Your task to perform on an android device: Search for the best rated headphones on amazon.com Image 0: 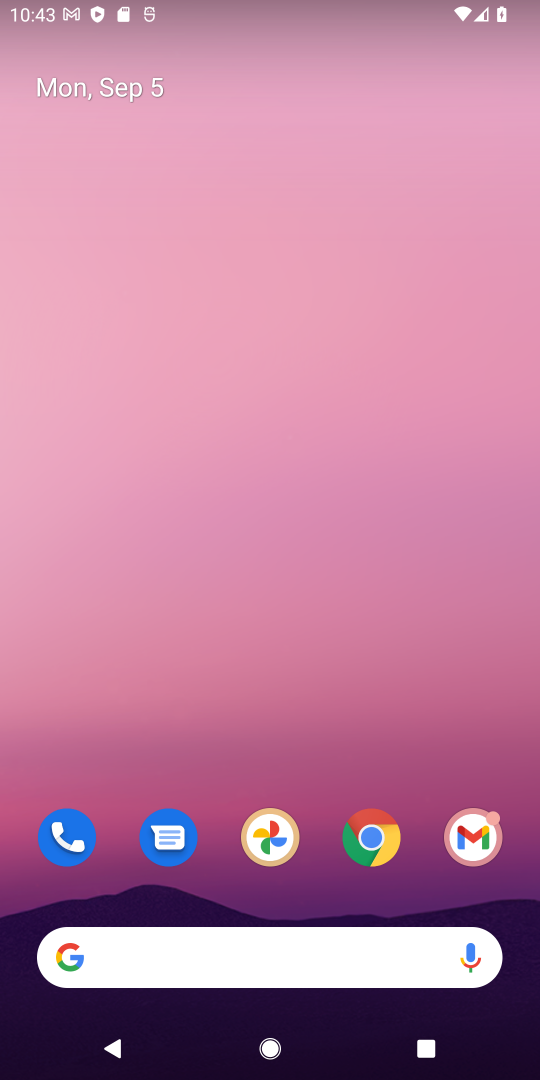
Step 0: press home button
Your task to perform on an android device: Search for the best rated headphones on amazon.com Image 1: 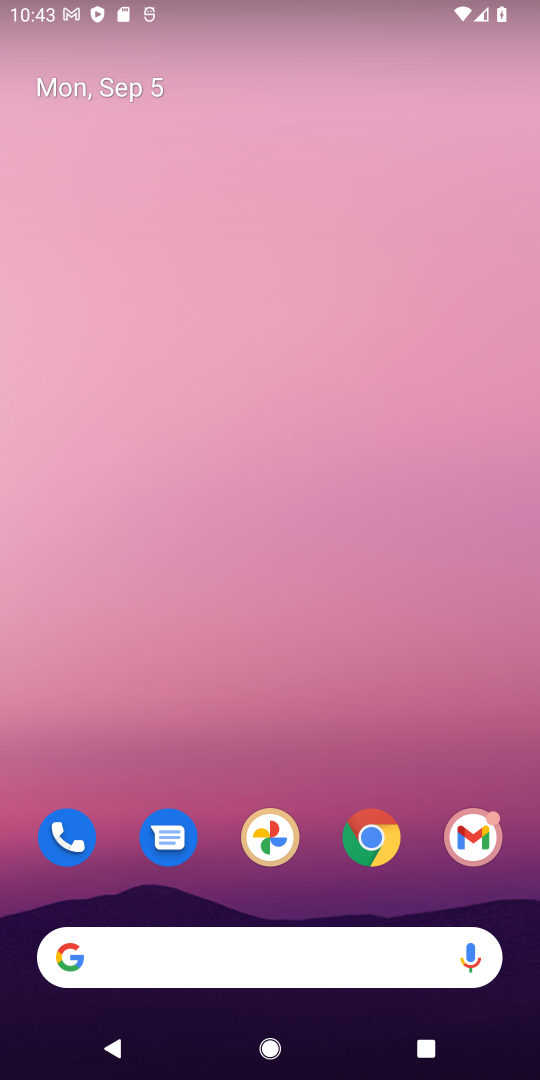
Step 1: drag from (324, 911) to (296, 152)
Your task to perform on an android device: Search for the best rated headphones on amazon.com Image 2: 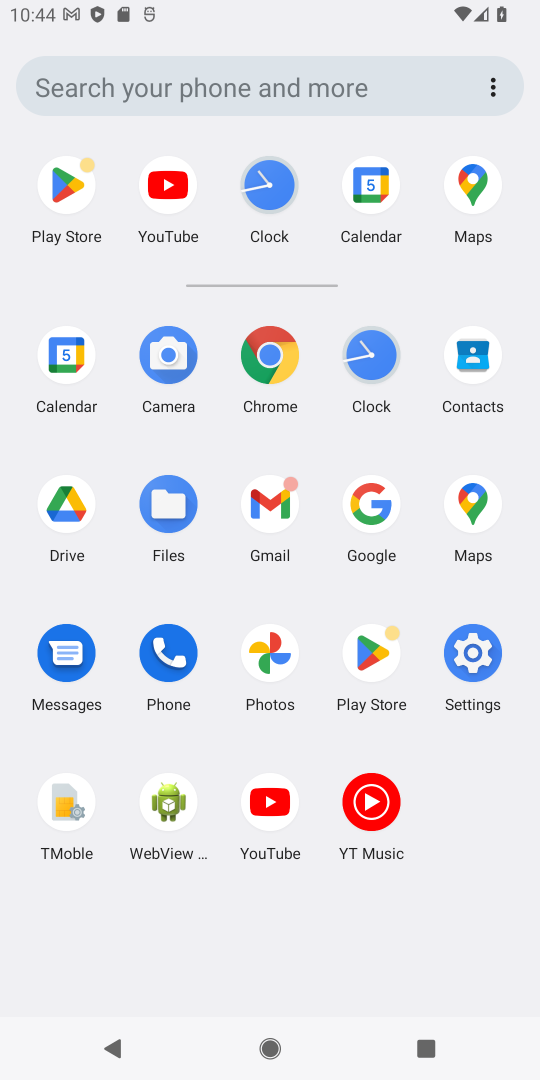
Step 2: click (260, 354)
Your task to perform on an android device: Search for the best rated headphones on amazon.com Image 3: 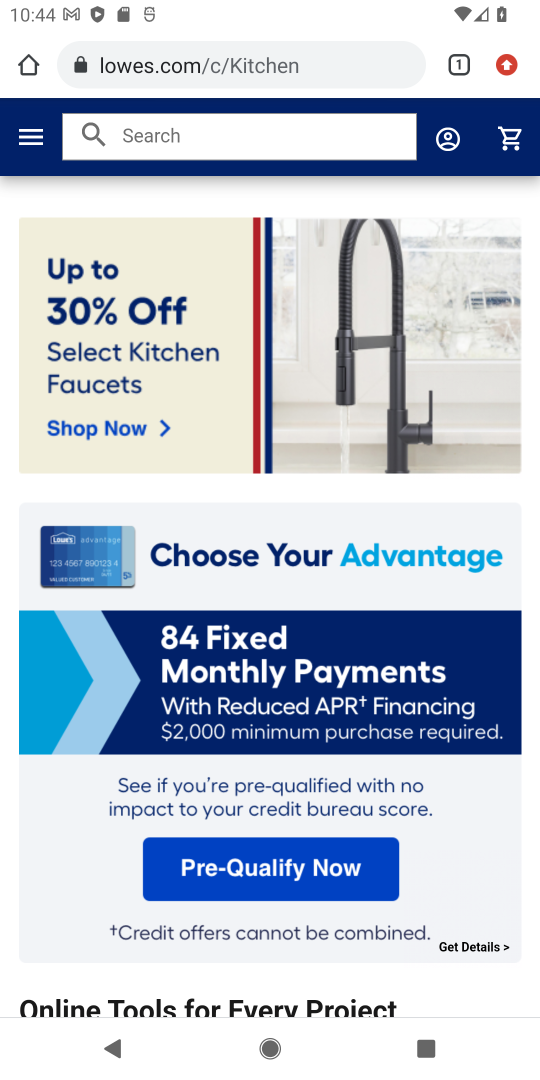
Step 3: click (193, 52)
Your task to perform on an android device: Search for the best rated headphones on amazon.com Image 4: 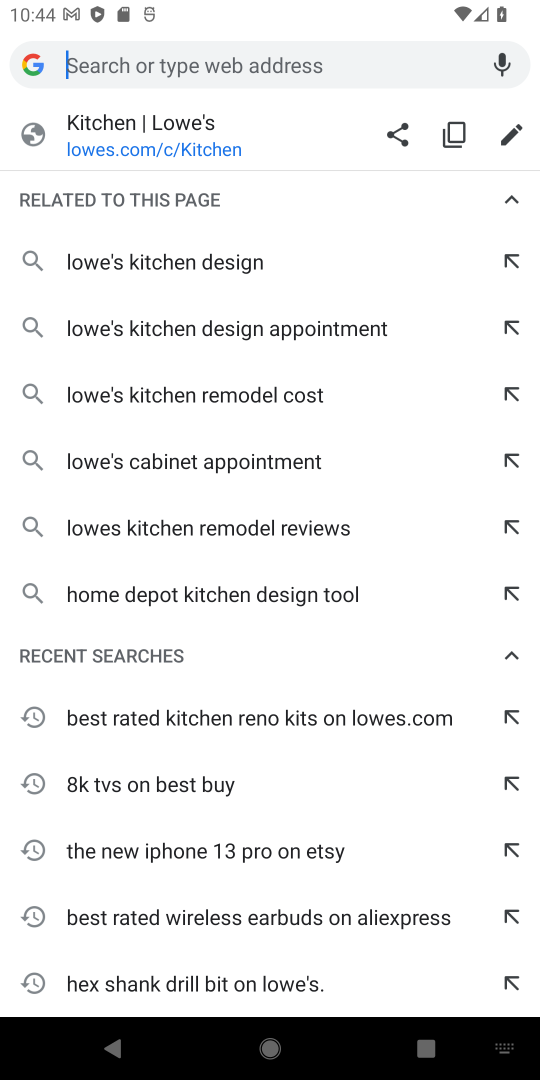
Step 4: type "best rated headphones on amazon.com"
Your task to perform on an android device: Search for the best rated headphones on amazon.com Image 5: 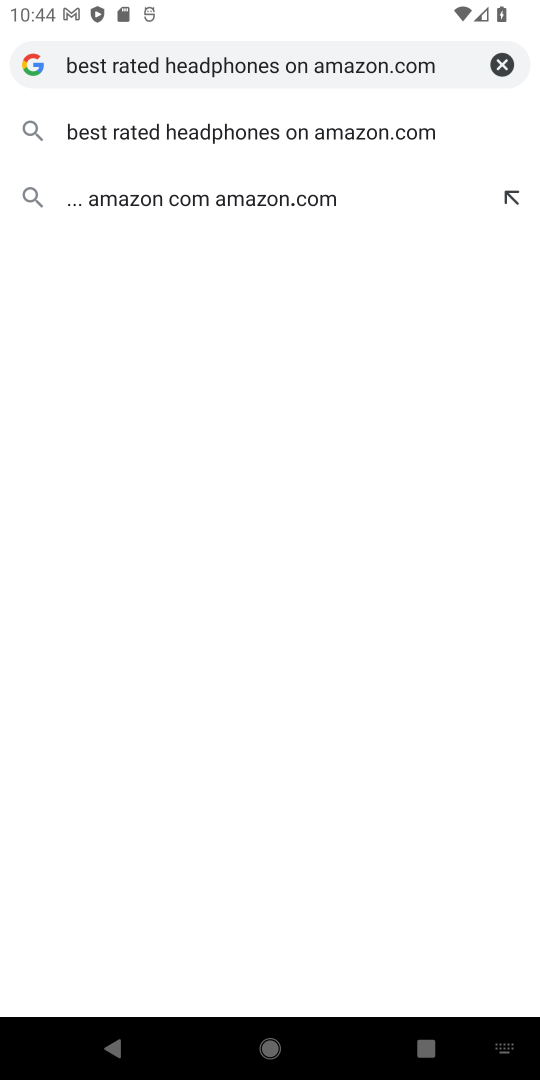
Step 5: click (193, 135)
Your task to perform on an android device: Search for the best rated headphones on amazon.com Image 6: 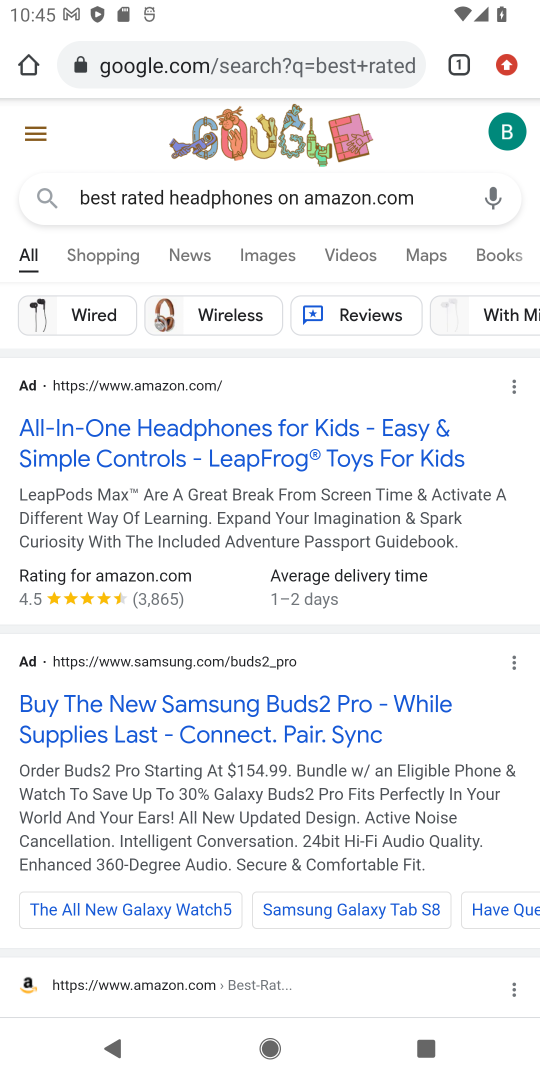
Step 6: click (177, 432)
Your task to perform on an android device: Search for the best rated headphones on amazon.com Image 7: 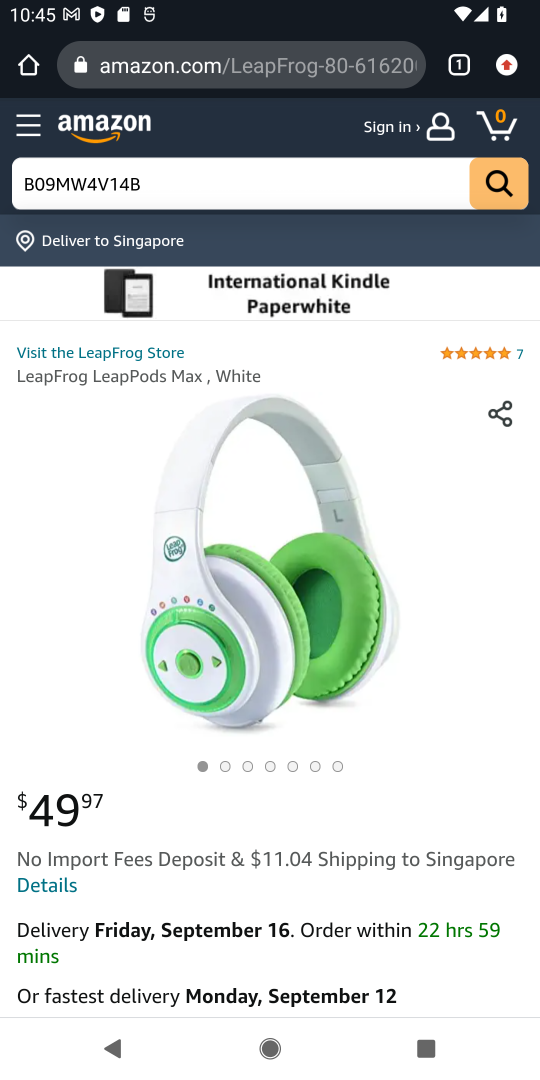
Step 7: drag from (261, 937) to (254, 431)
Your task to perform on an android device: Search for the best rated headphones on amazon.com Image 8: 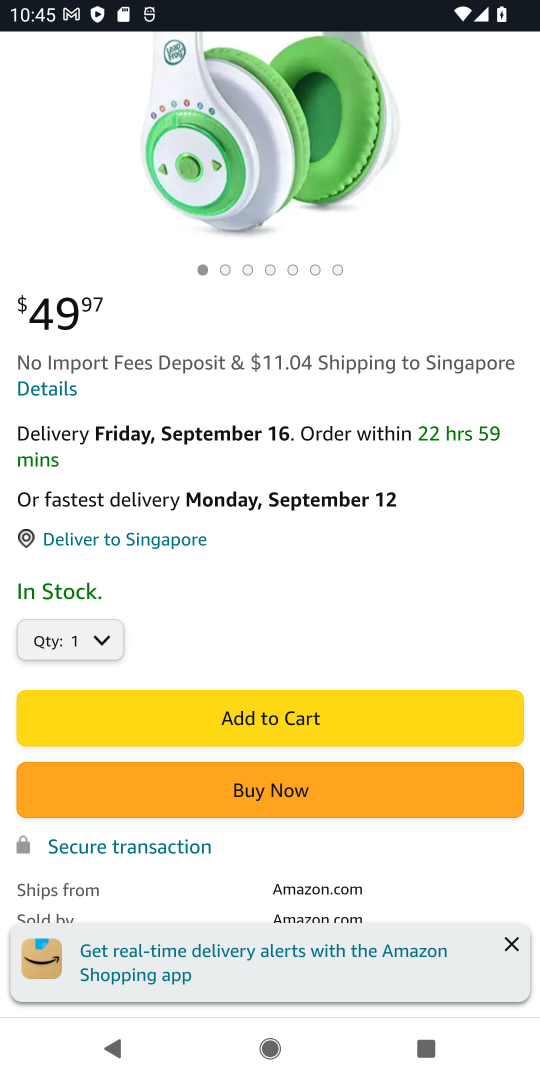
Step 8: drag from (208, 736) to (192, 368)
Your task to perform on an android device: Search for the best rated headphones on amazon.com Image 9: 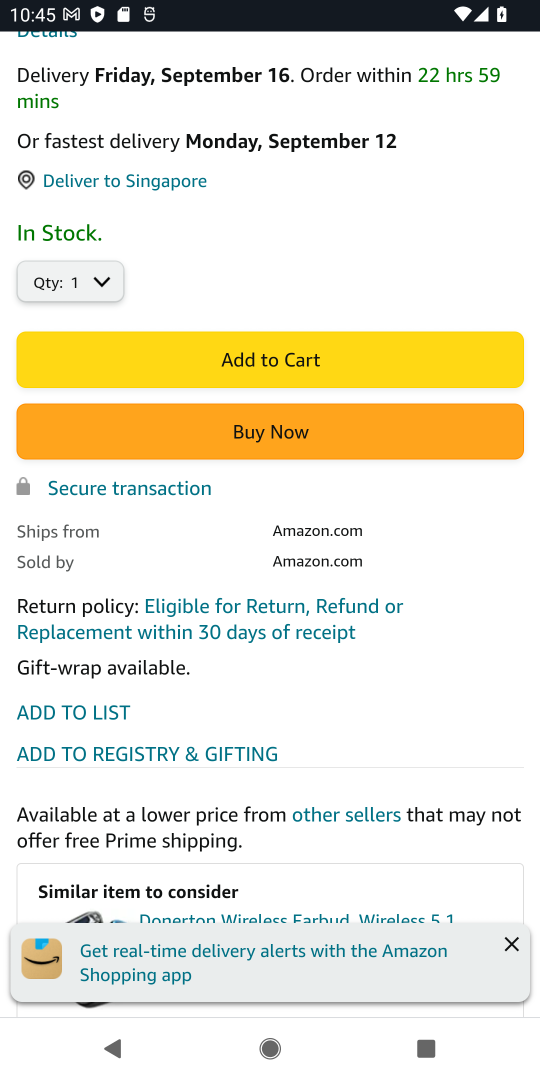
Step 9: drag from (236, 786) to (196, 312)
Your task to perform on an android device: Search for the best rated headphones on amazon.com Image 10: 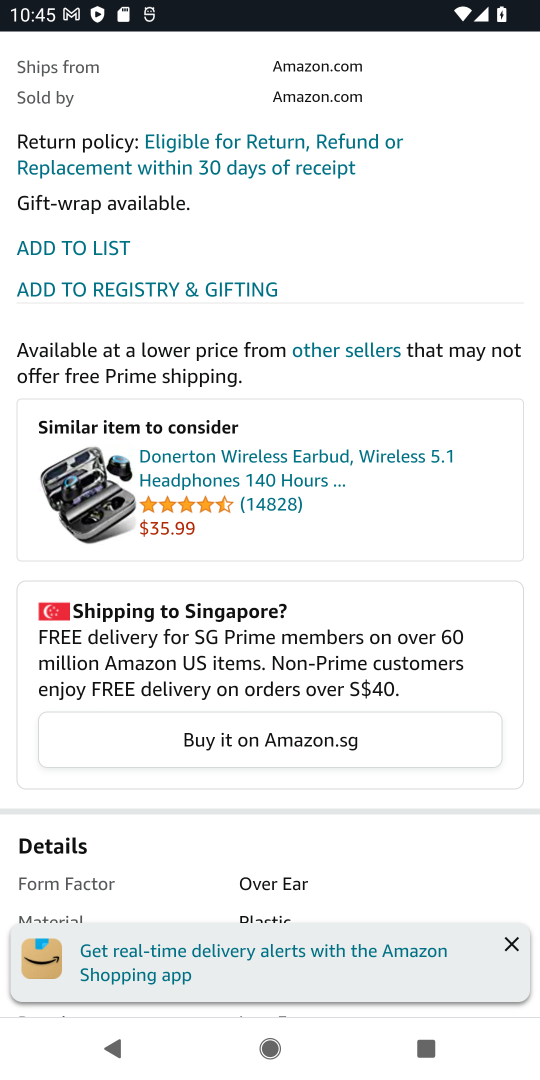
Step 10: drag from (243, 823) to (234, 186)
Your task to perform on an android device: Search for the best rated headphones on amazon.com Image 11: 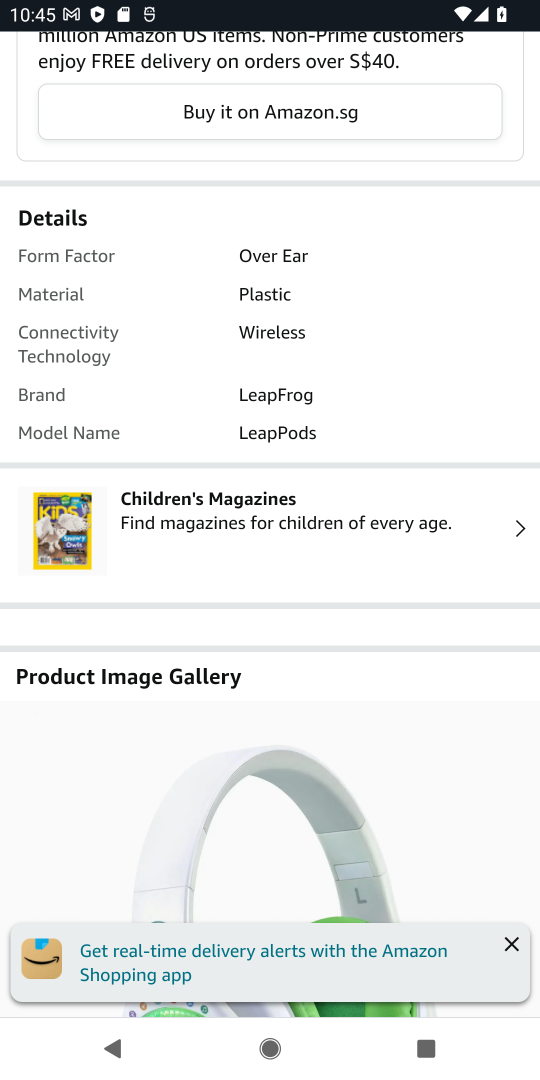
Step 11: drag from (240, 849) to (230, 358)
Your task to perform on an android device: Search for the best rated headphones on amazon.com Image 12: 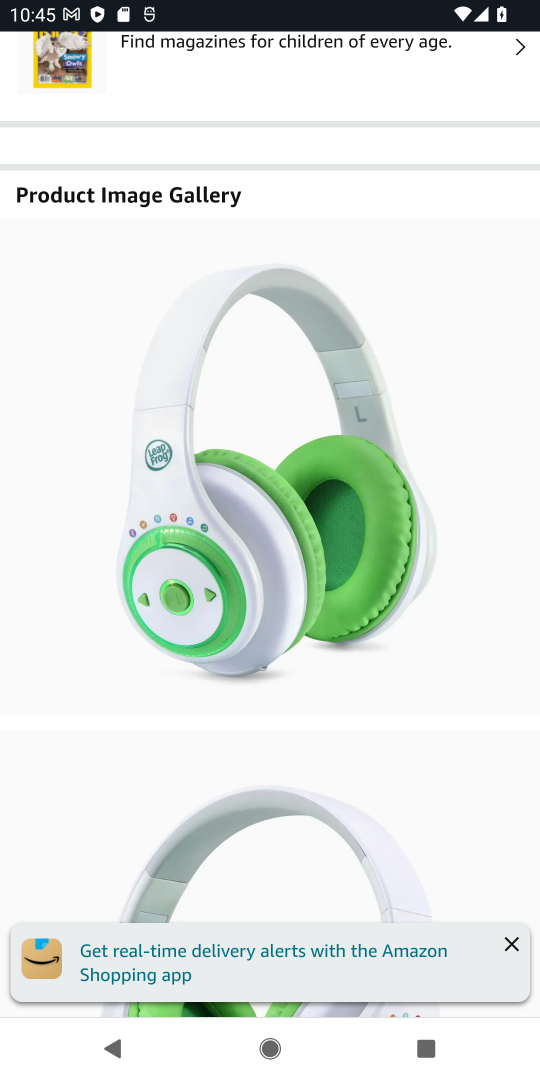
Step 12: drag from (259, 877) to (242, 268)
Your task to perform on an android device: Search for the best rated headphones on amazon.com Image 13: 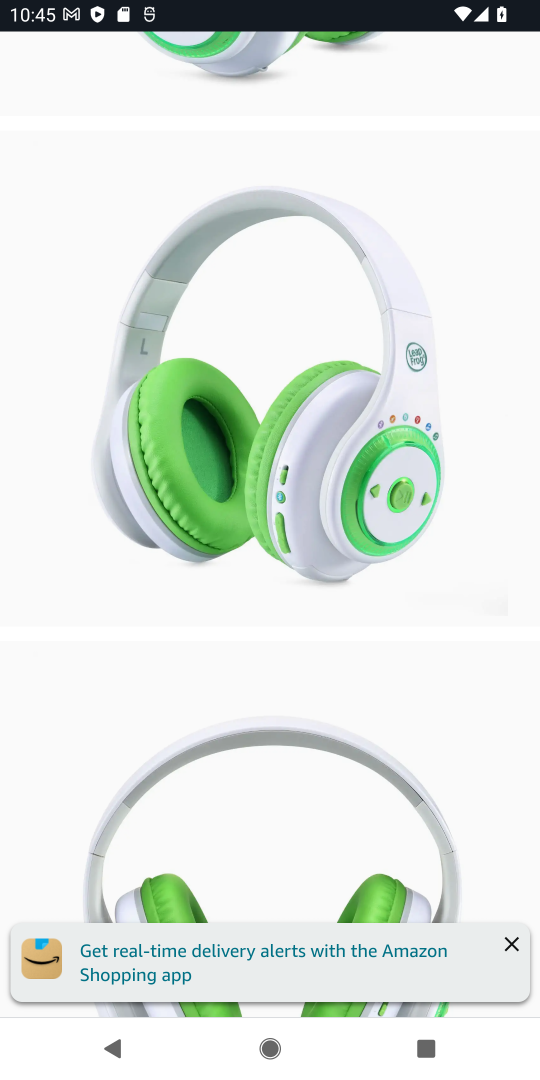
Step 13: drag from (287, 858) to (261, 331)
Your task to perform on an android device: Search for the best rated headphones on amazon.com Image 14: 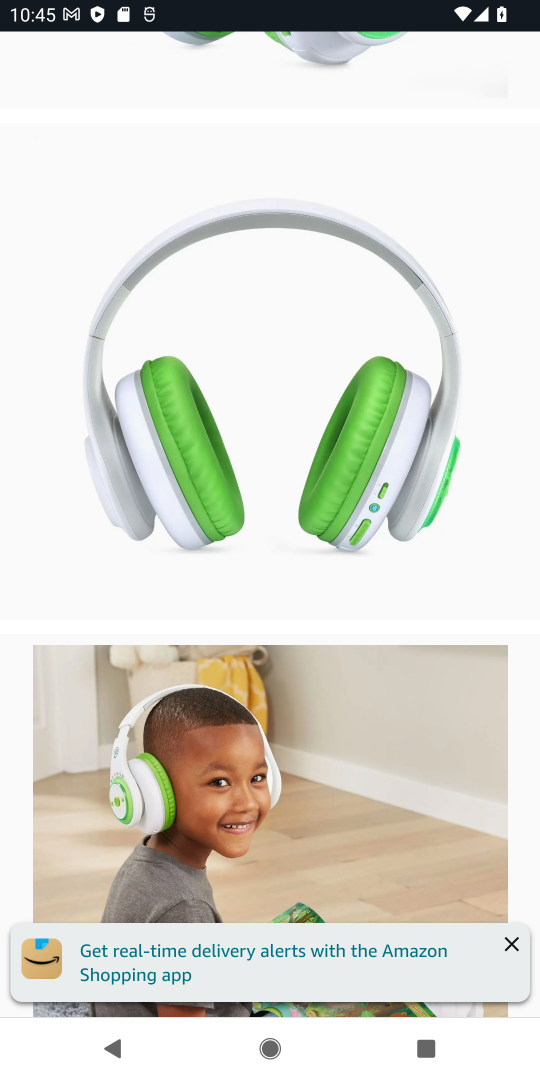
Step 14: drag from (313, 788) to (309, 309)
Your task to perform on an android device: Search for the best rated headphones on amazon.com Image 15: 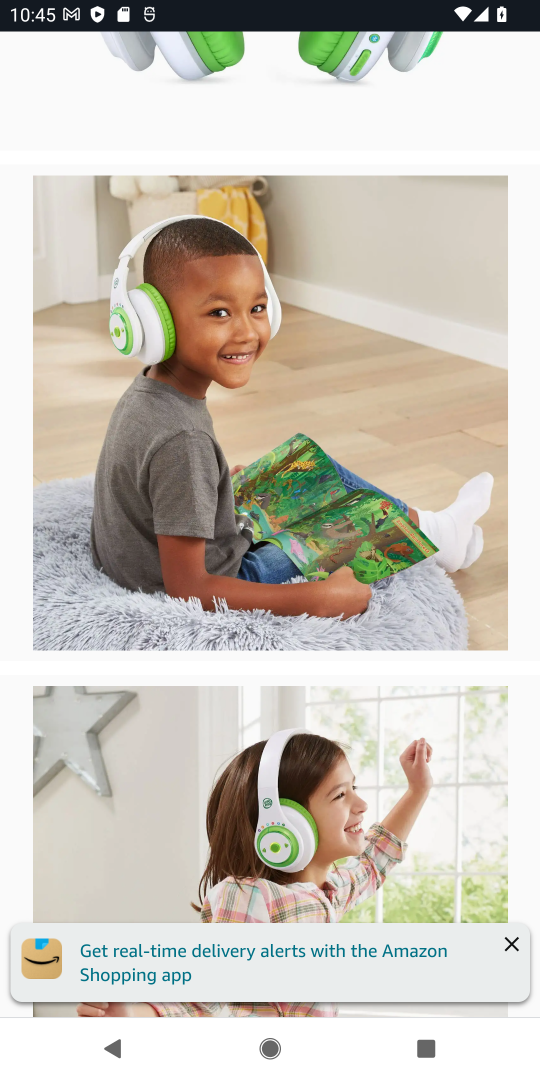
Step 15: drag from (286, 759) to (244, 278)
Your task to perform on an android device: Search for the best rated headphones on amazon.com Image 16: 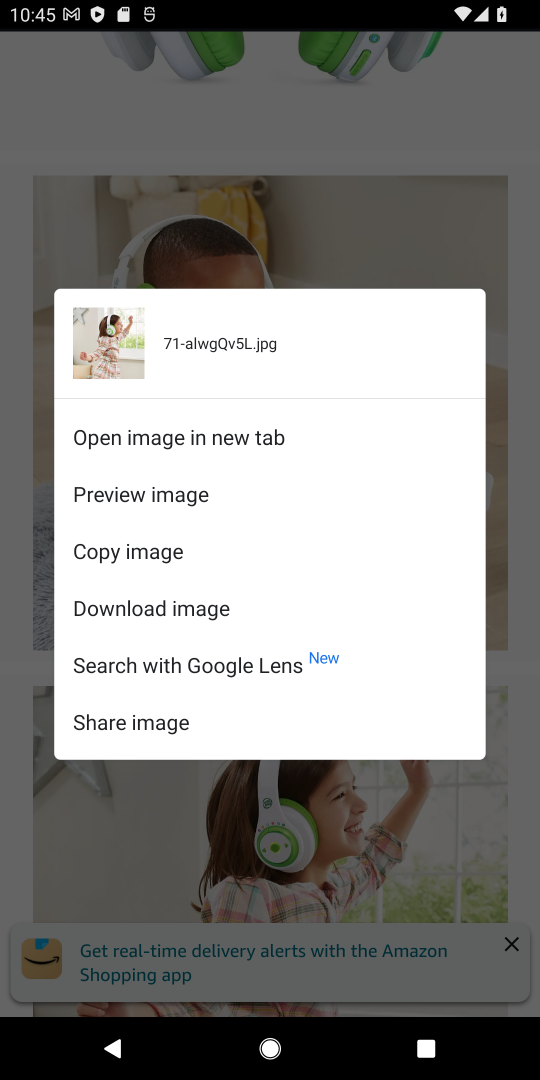
Step 16: click (252, 843)
Your task to perform on an android device: Search for the best rated headphones on amazon.com Image 17: 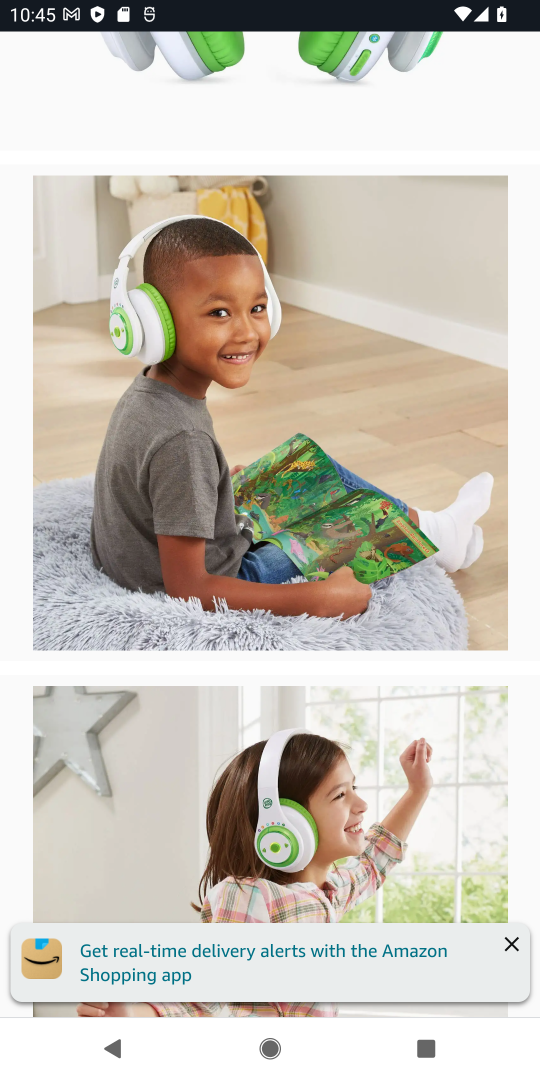
Step 17: drag from (279, 569) to (277, 392)
Your task to perform on an android device: Search for the best rated headphones on amazon.com Image 18: 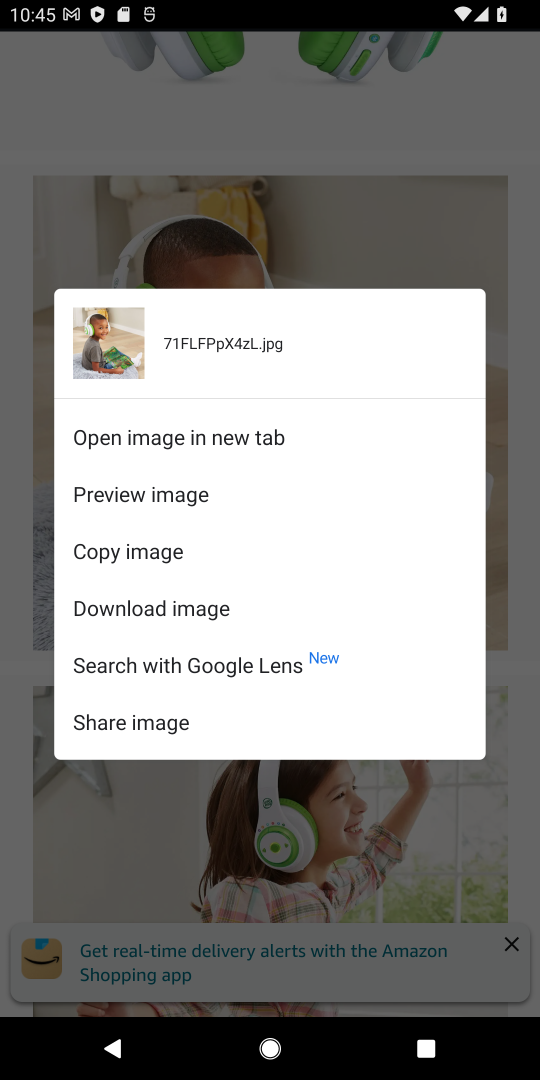
Step 18: click (170, 844)
Your task to perform on an android device: Search for the best rated headphones on amazon.com Image 19: 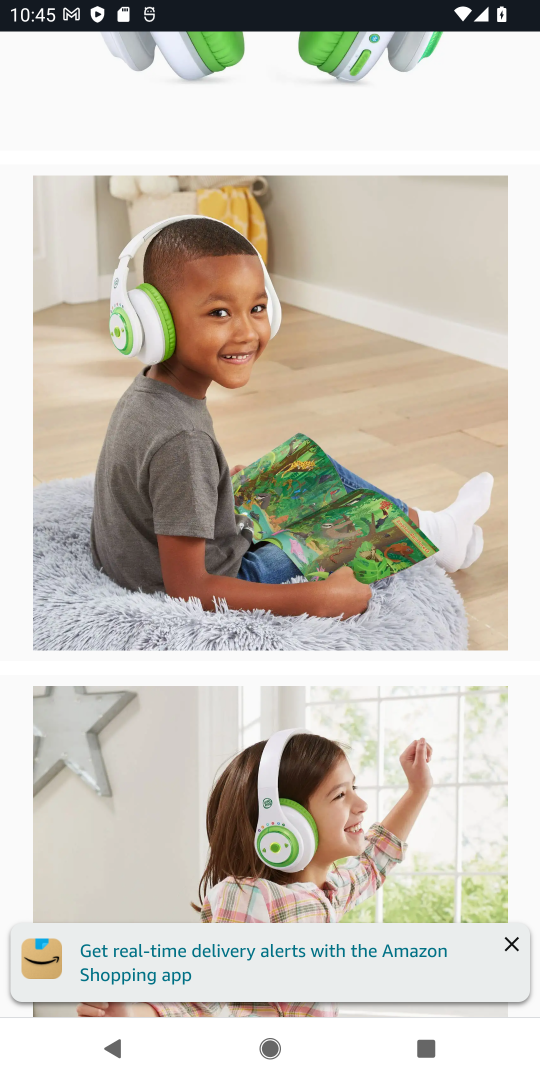
Step 19: task complete